Your task to perform on an android device: Go to ESPN.com Image 0: 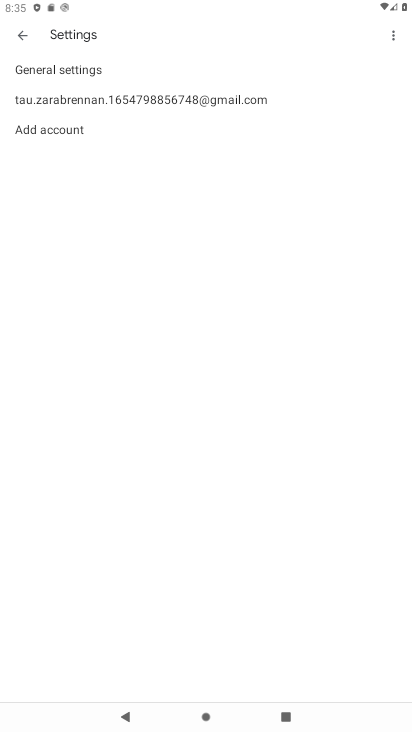
Step 0: press home button
Your task to perform on an android device: Go to ESPN.com Image 1: 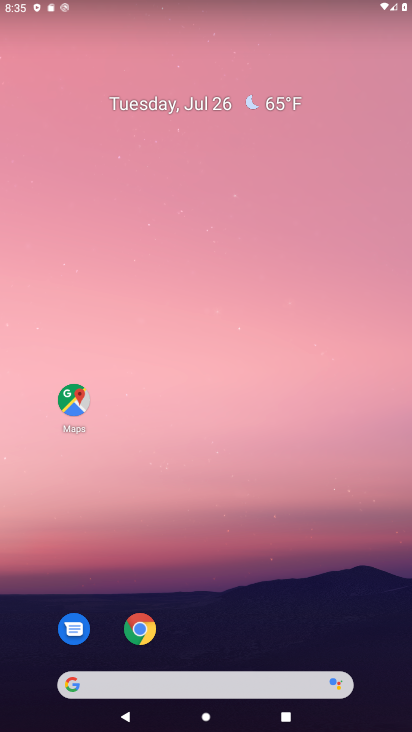
Step 1: click (143, 619)
Your task to perform on an android device: Go to ESPN.com Image 2: 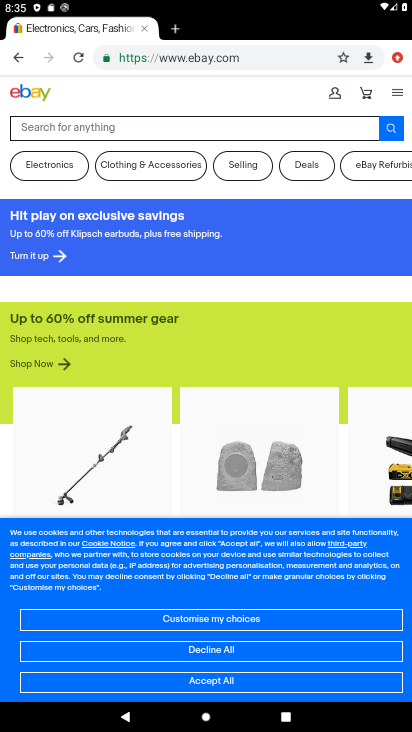
Step 2: click (143, 59)
Your task to perform on an android device: Go to ESPN.com Image 3: 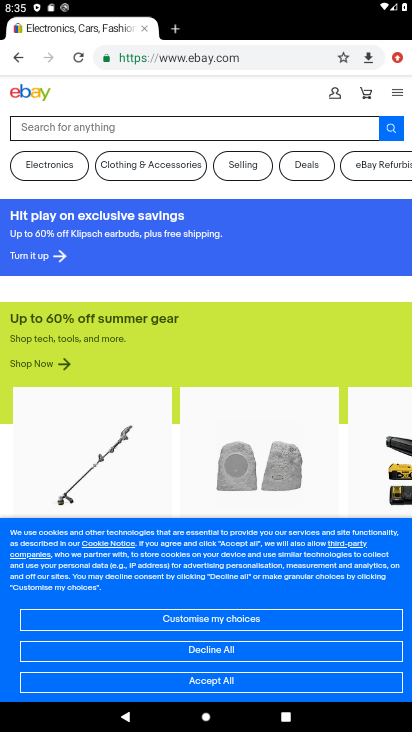
Step 3: click (143, 59)
Your task to perform on an android device: Go to ESPN.com Image 4: 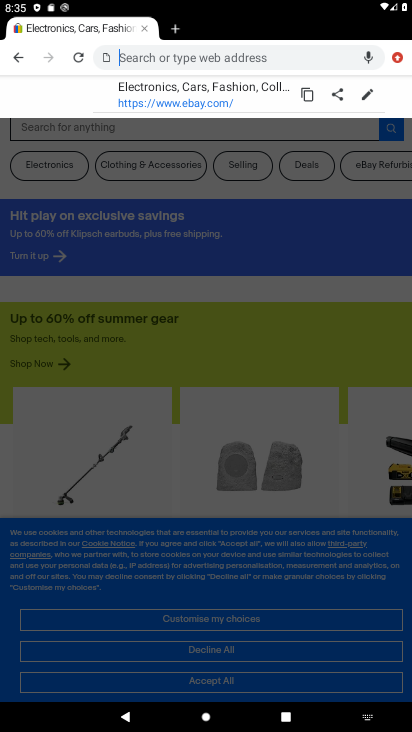
Step 4: type "ESPN.com"
Your task to perform on an android device: Go to ESPN.com Image 5: 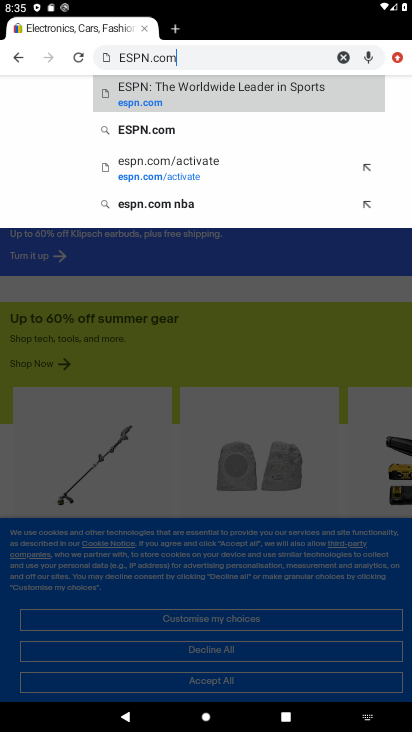
Step 5: click (208, 95)
Your task to perform on an android device: Go to ESPN.com Image 6: 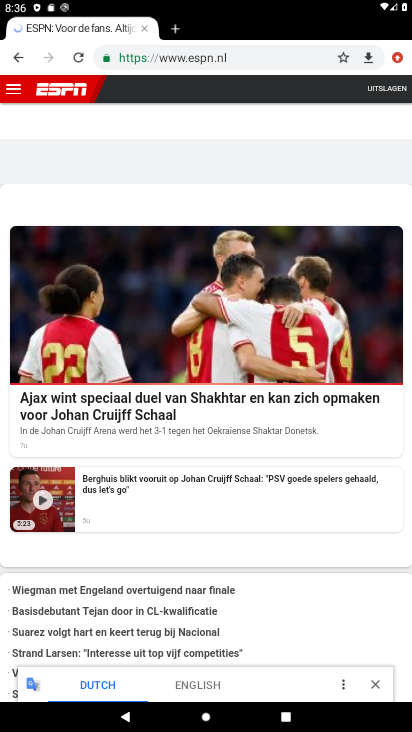
Step 6: task complete